Your task to perform on an android device: turn off notifications settings in the gmail app Image 0: 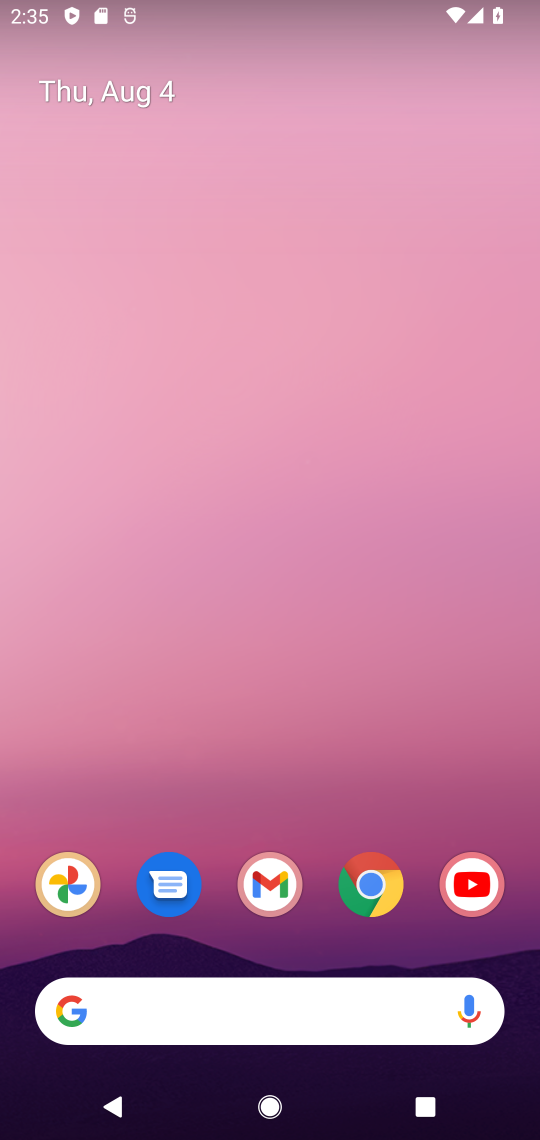
Step 0: drag from (221, 986) to (320, 329)
Your task to perform on an android device: turn off notifications settings in the gmail app Image 1: 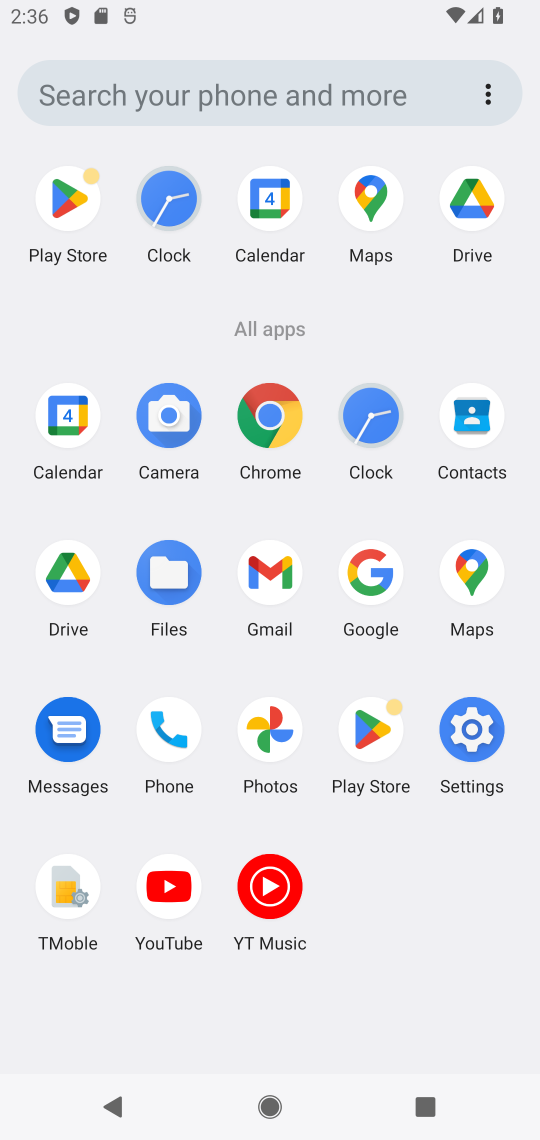
Step 1: click (267, 545)
Your task to perform on an android device: turn off notifications settings in the gmail app Image 2: 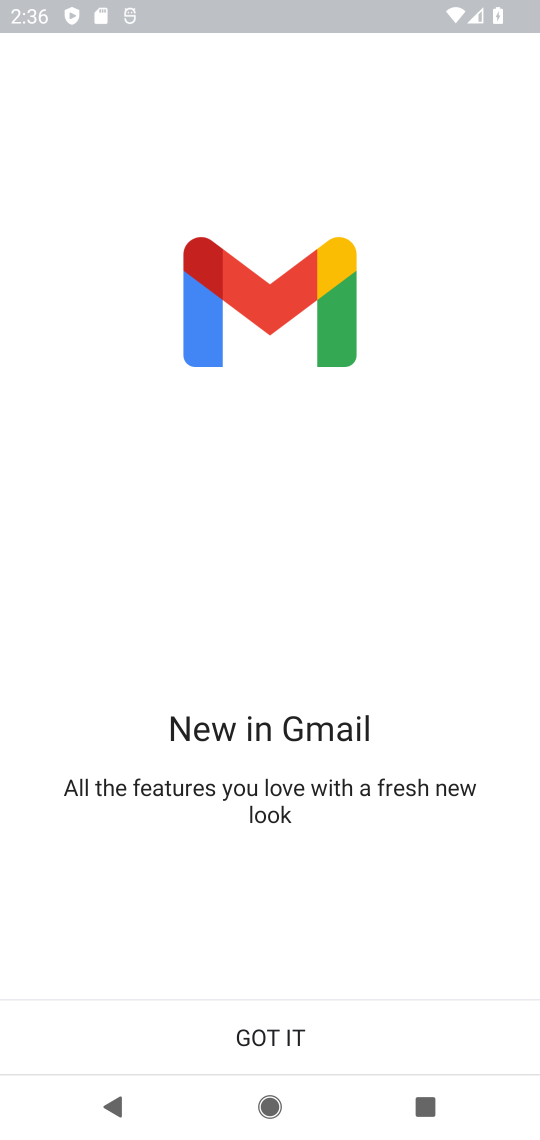
Step 2: click (274, 1044)
Your task to perform on an android device: turn off notifications settings in the gmail app Image 3: 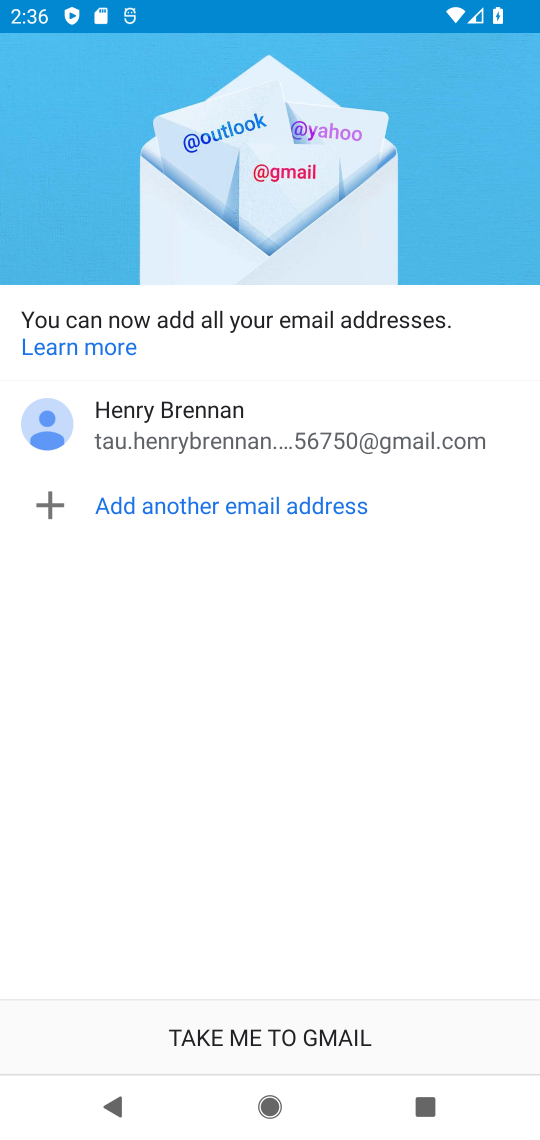
Step 3: click (234, 1027)
Your task to perform on an android device: turn off notifications settings in the gmail app Image 4: 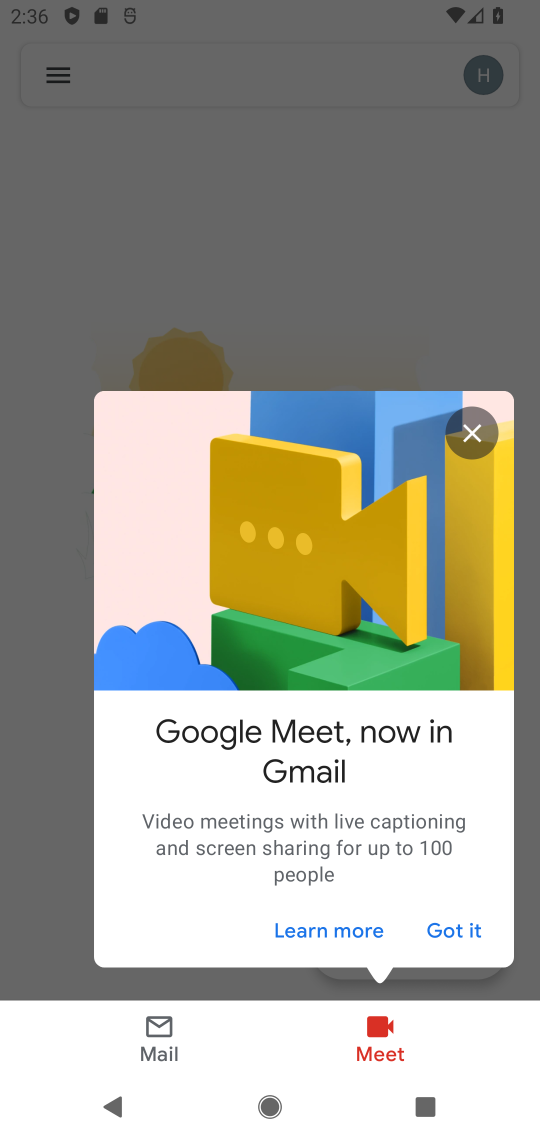
Step 4: click (464, 928)
Your task to perform on an android device: turn off notifications settings in the gmail app Image 5: 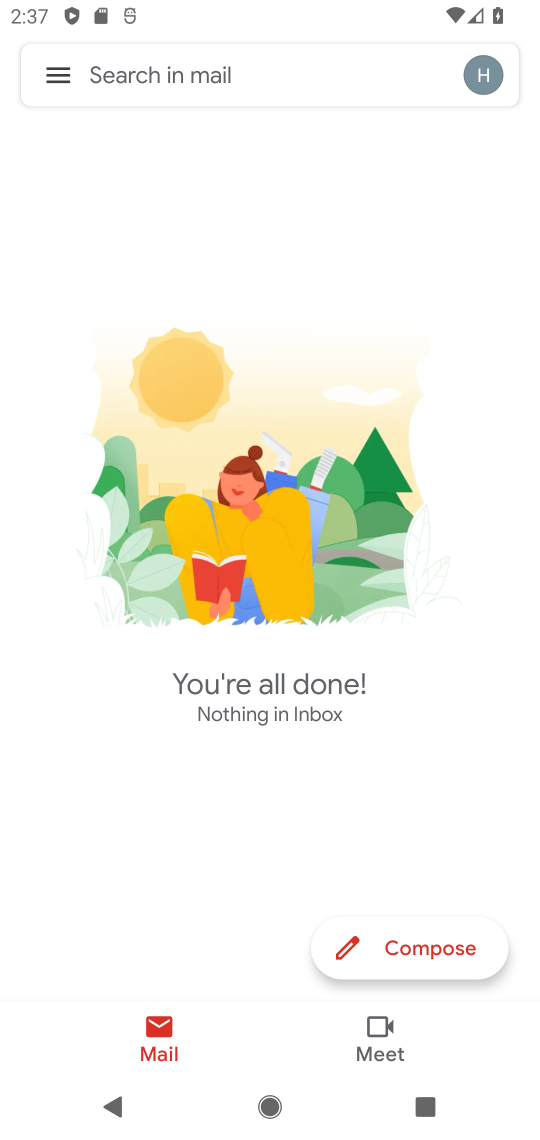
Step 5: click (55, 69)
Your task to perform on an android device: turn off notifications settings in the gmail app Image 6: 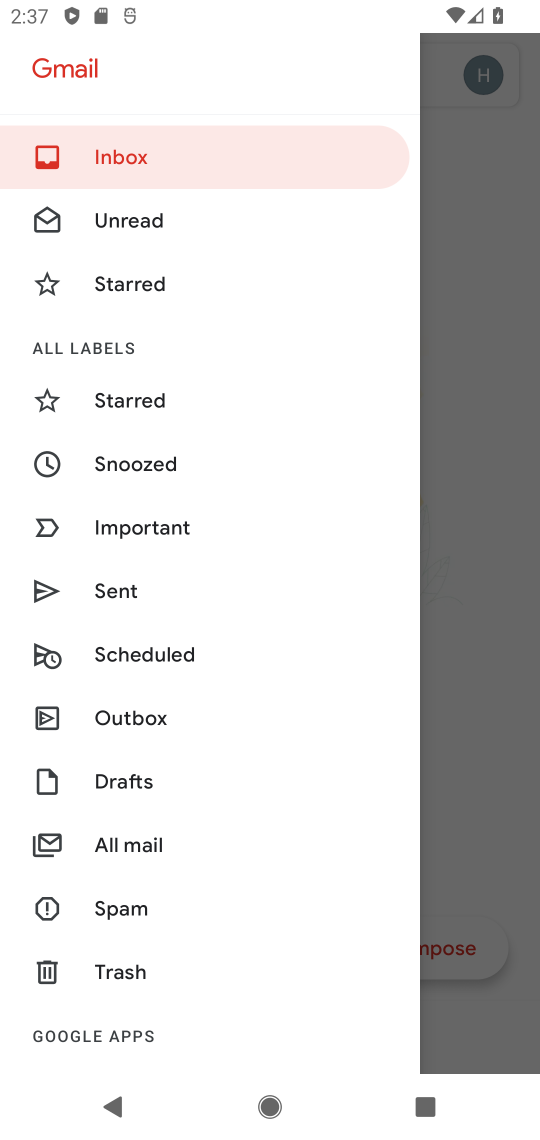
Step 6: drag from (114, 933) to (191, 448)
Your task to perform on an android device: turn off notifications settings in the gmail app Image 7: 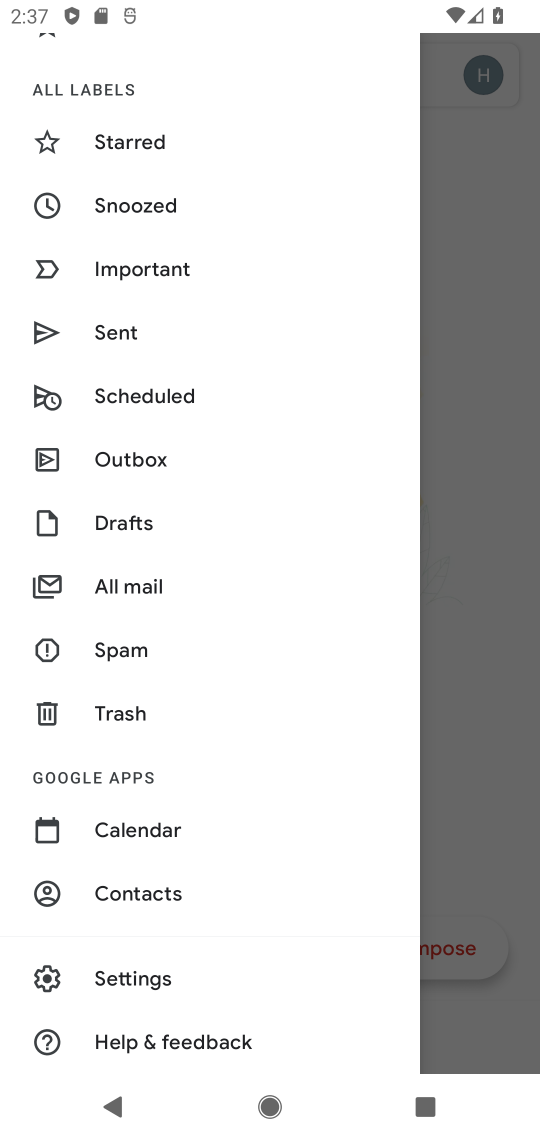
Step 7: click (129, 990)
Your task to perform on an android device: turn off notifications settings in the gmail app Image 8: 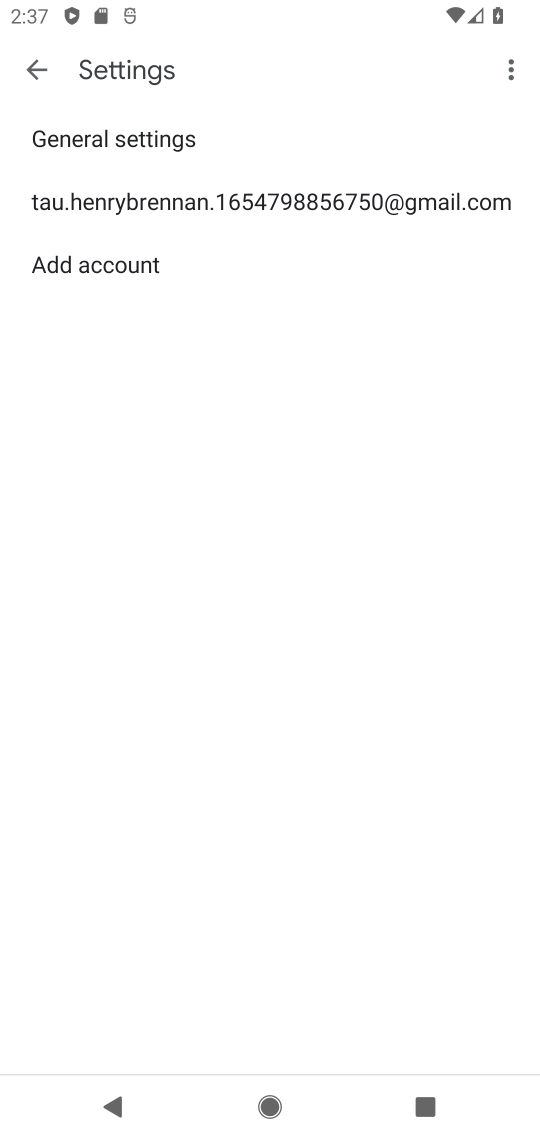
Step 8: click (202, 208)
Your task to perform on an android device: turn off notifications settings in the gmail app Image 9: 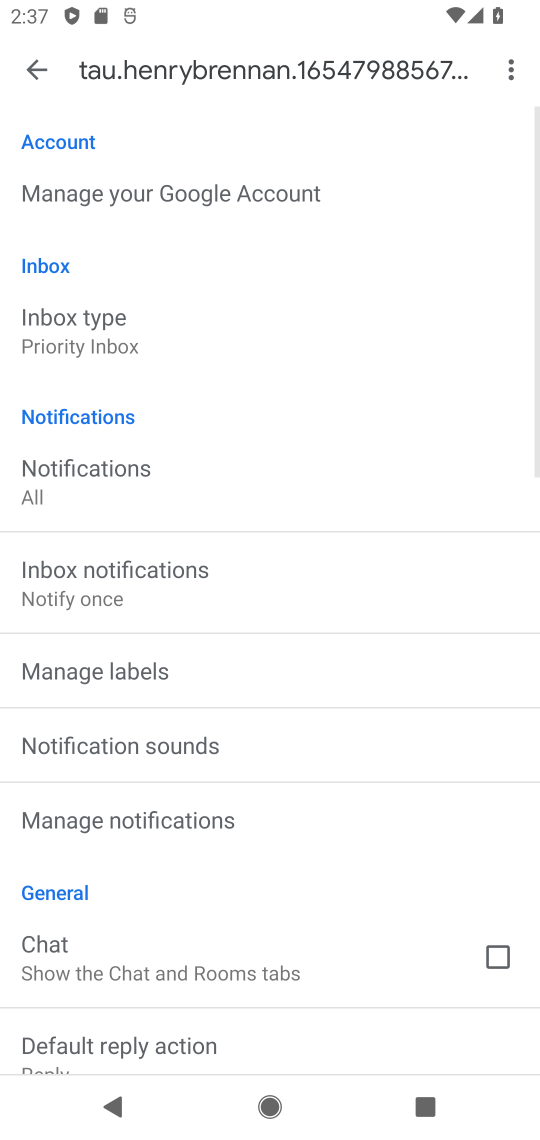
Step 9: click (130, 482)
Your task to perform on an android device: turn off notifications settings in the gmail app Image 10: 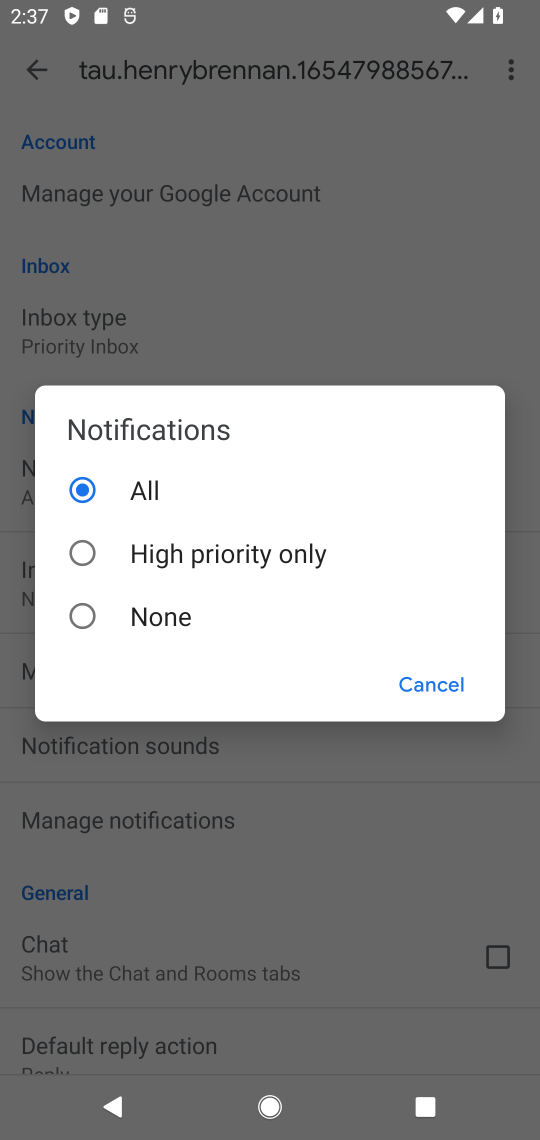
Step 10: click (158, 604)
Your task to perform on an android device: turn off notifications settings in the gmail app Image 11: 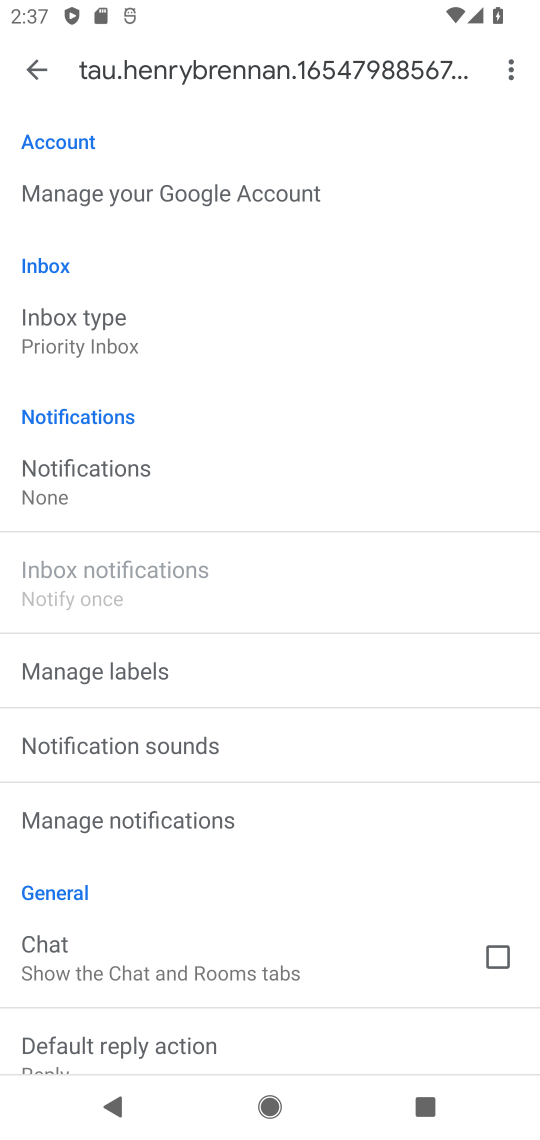
Step 11: task complete